Your task to perform on an android device: turn notification dots on Image 0: 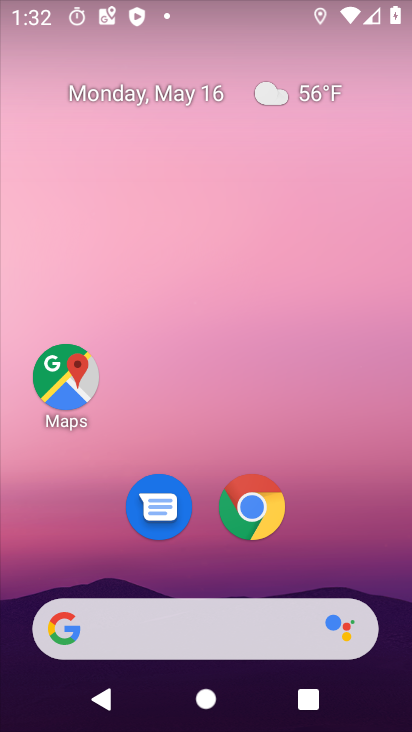
Step 0: drag from (211, 537) to (287, 41)
Your task to perform on an android device: turn notification dots on Image 1: 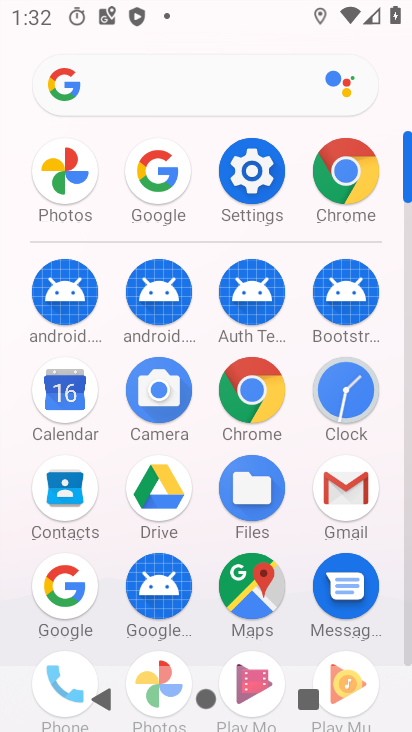
Step 1: click (249, 163)
Your task to perform on an android device: turn notification dots on Image 2: 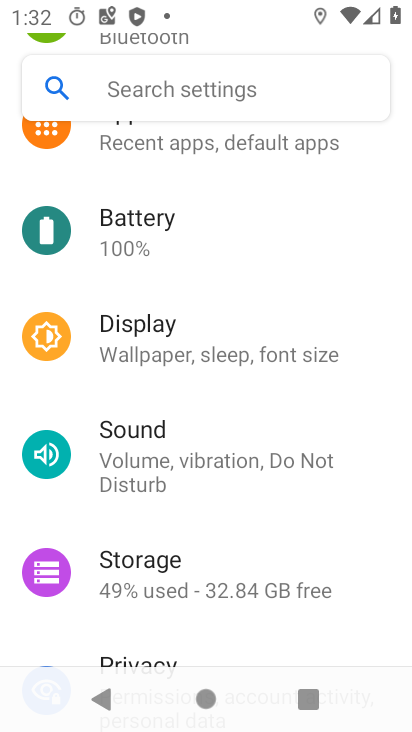
Step 2: drag from (181, 156) to (219, 408)
Your task to perform on an android device: turn notification dots on Image 3: 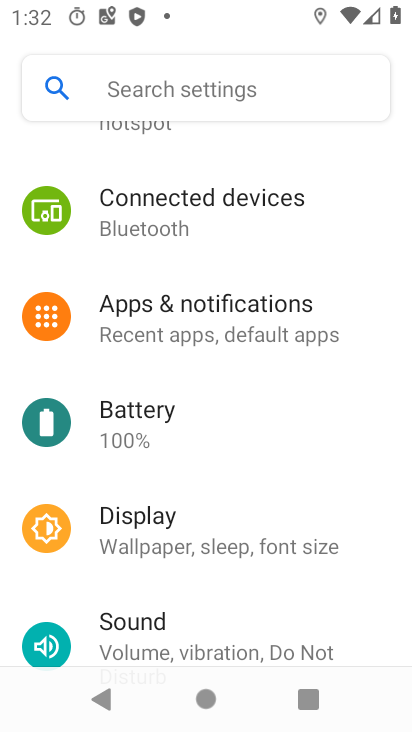
Step 3: click (189, 308)
Your task to perform on an android device: turn notification dots on Image 4: 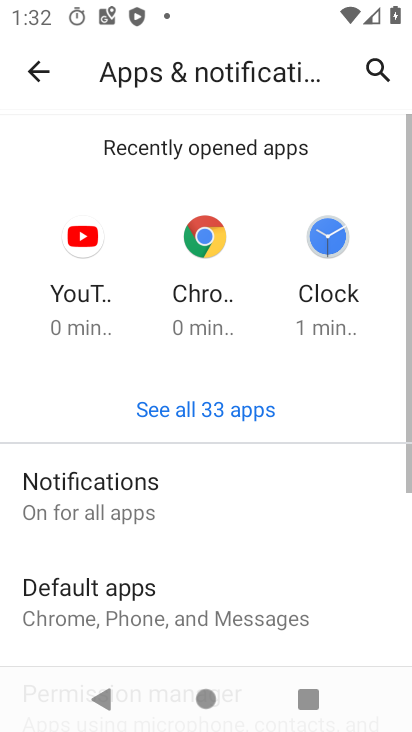
Step 4: click (155, 487)
Your task to perform on an android device: turn notification dots on Image 5: 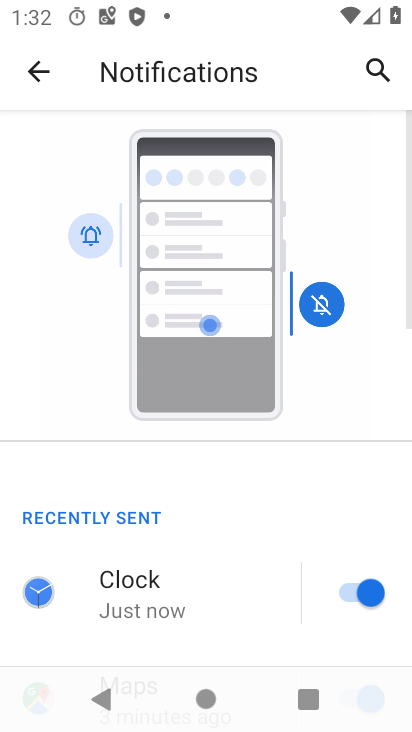
Step 5: drag from (225, 515) to (258, 36)
Your task to perform on an android device: turn notification dots on Image 6: 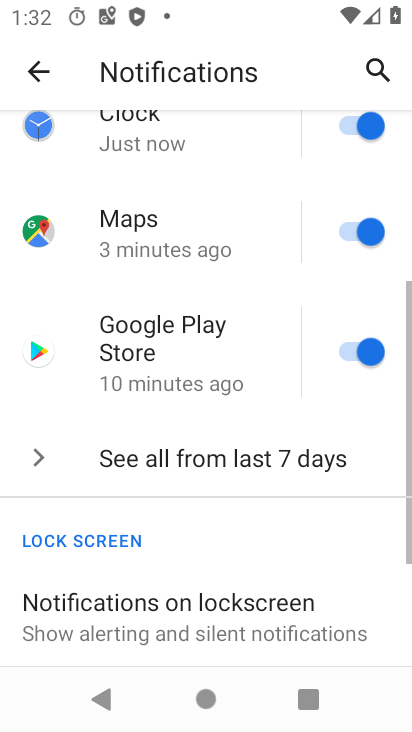
Step 6: drag from (203, 513) to (223, 147)
Your task to perform on an android device: turn notification dots on Image 7: 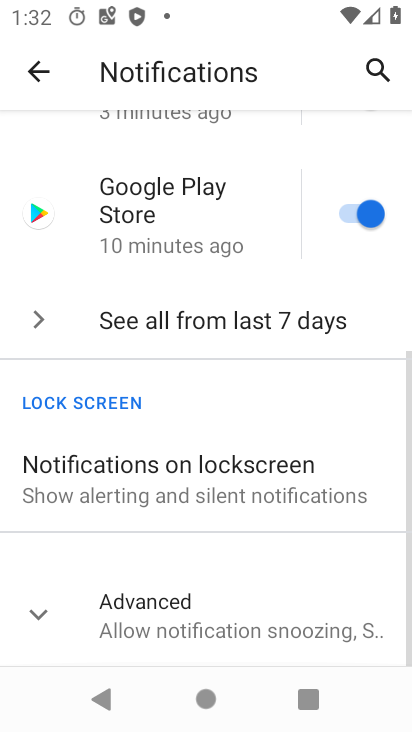
Step 7: click (144, 633)
Your task to perform on an android device: turn notification dots on Image 8: 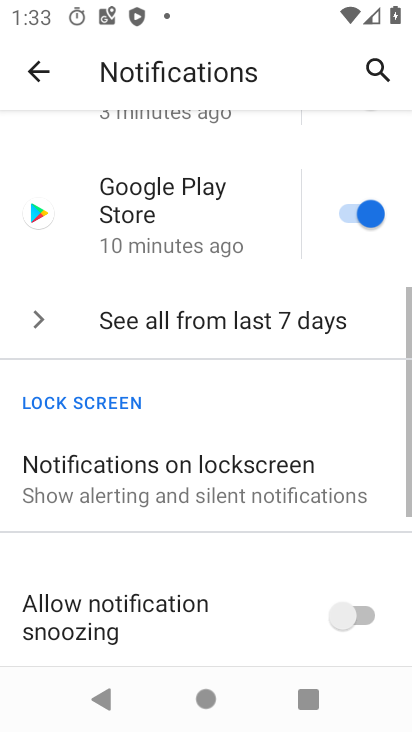
Step 8: task complete